Your task to perform on an android device: stop showing notifications on the lock screen Image 0: 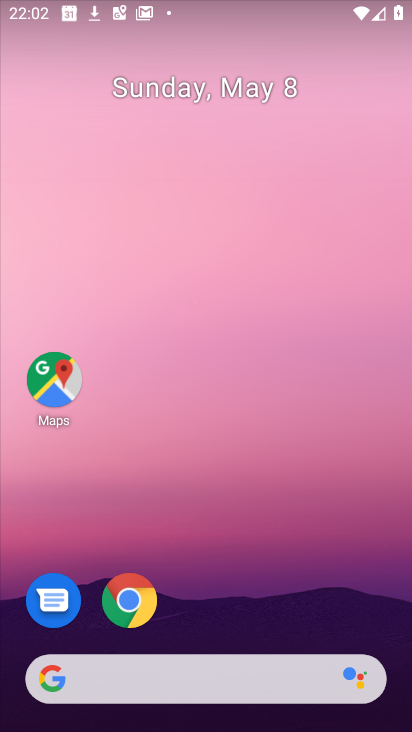
Step 0: drag from (227, 706) to (180, 329)
Your task to perform on an android device: stop showing notifications on the lock screen Image 1: 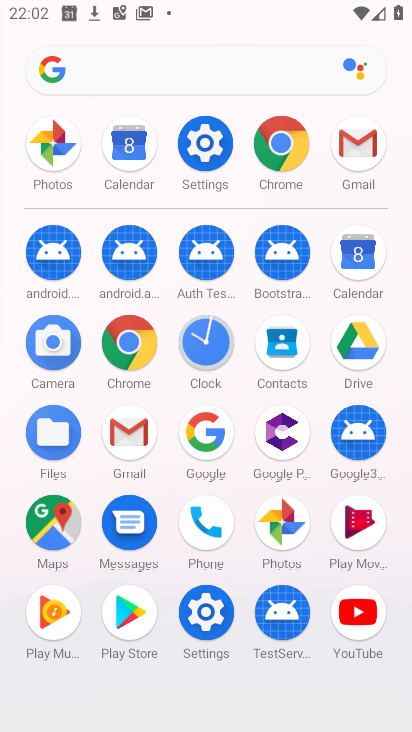
Step 1: click (196, 152)
Your task to perform on an android device: stop showing notifications on the lock screen Image 2: 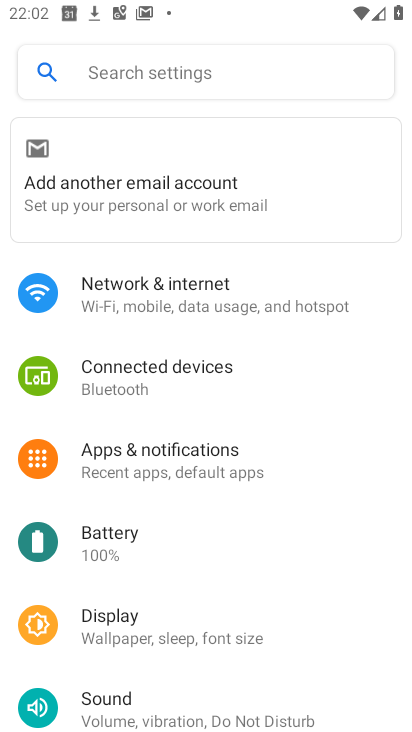
Step 2: click (171, 87)
Your task to perform on an android device: stop showing notifications on the lock screen Image 3: 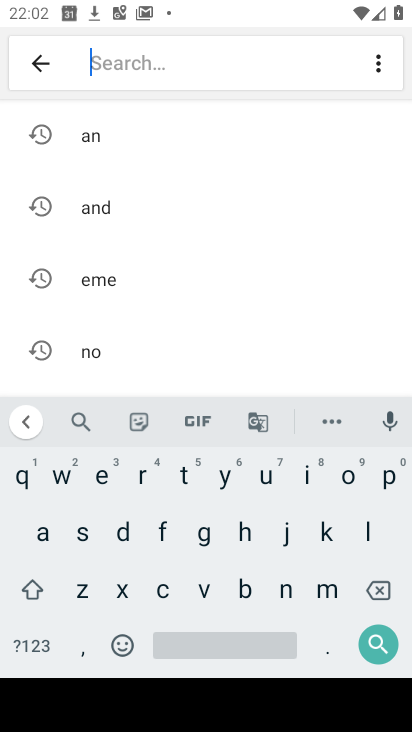
Step 3: click (109, 355)
Your task to perform on an android device: stop showing notifications on the lock screen Image 4: 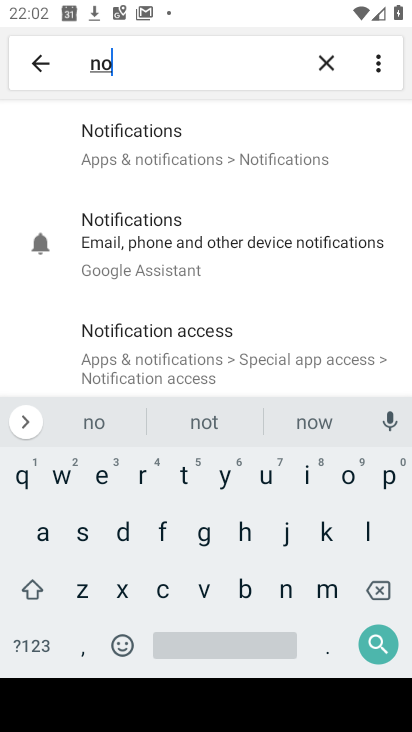
Step 4: click (193, 153)
Your task to perform on an android device: stop showing notifications on the lock screen Image 5: 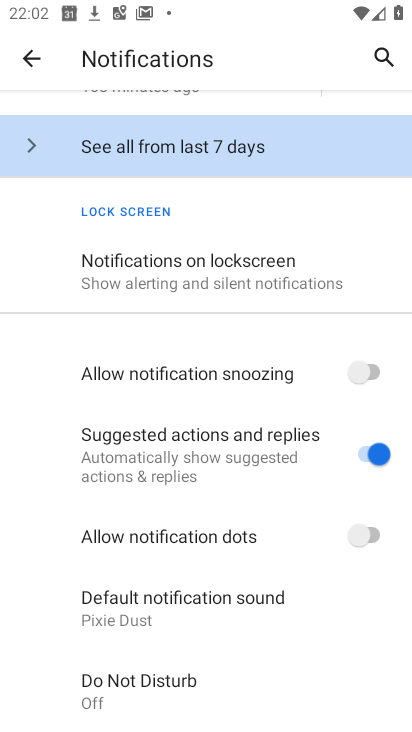
Step 5: click (152, 254)
Your task to perform on an android device: stop showing notifications on the lock screen Image 6: 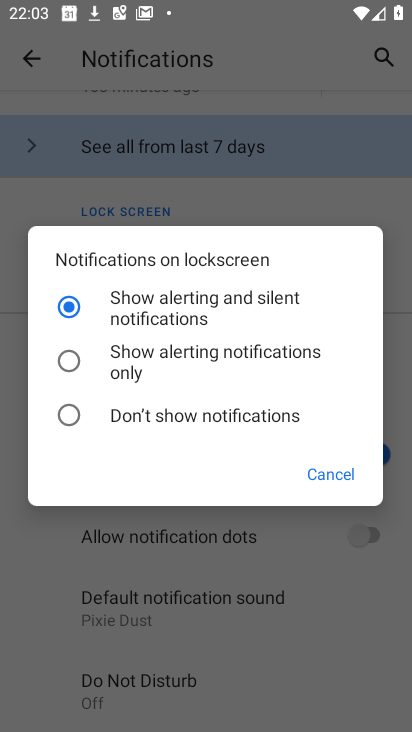
Step 6: click (156, 420)
Your task to perform on an android device: stop showing notifications on the lock screen Image 7: 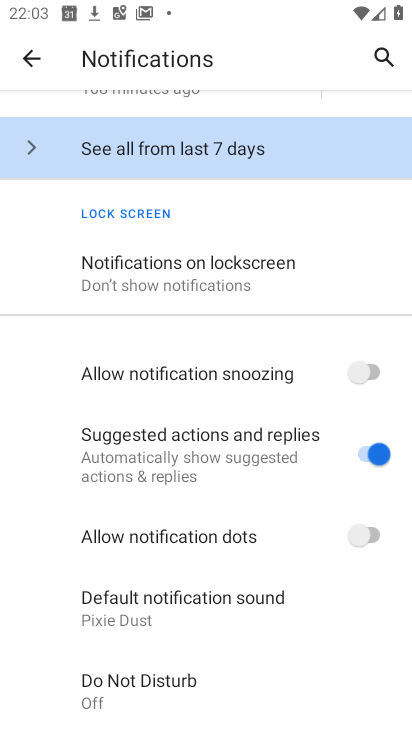
Step 7: task complete